Your task to perform on an android device: check storage Image 0: 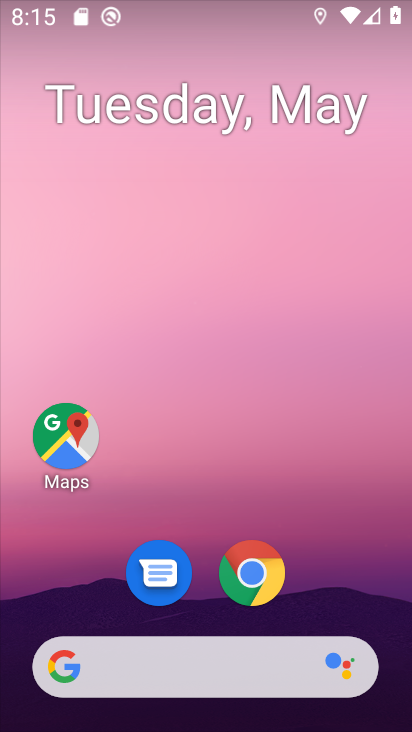
Step 0: drag from (385, 596) to (394, 399)
Your task to perform on an android device: check storage Image 1: 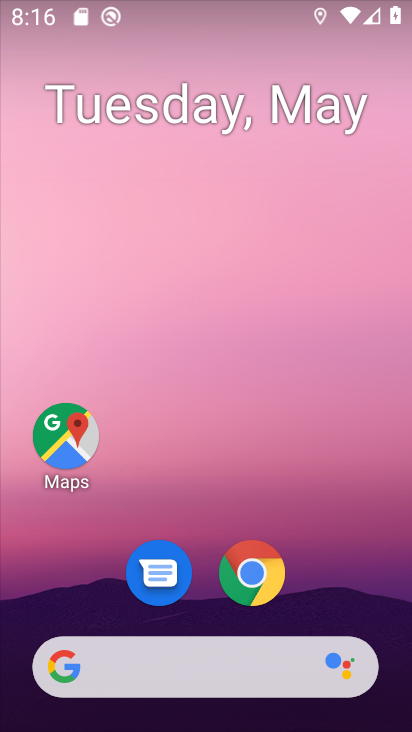
Step 1: drag from (387, 707) to (358, 394)
Your task to perform on an android device: check storage Image 2: 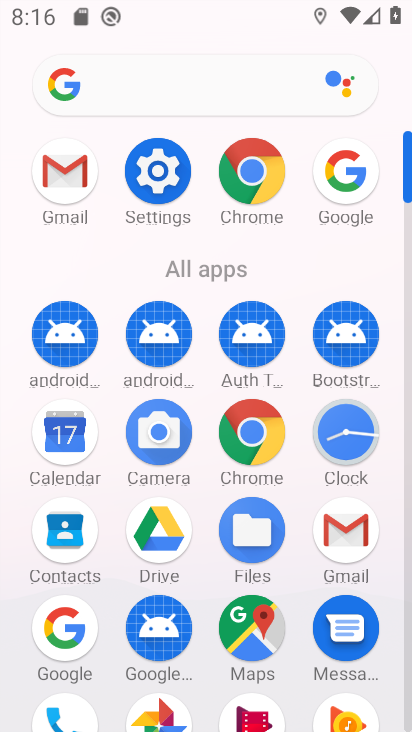
Step 2: click (157, 175)
Your task to perform on an android device: check storage Image 3: 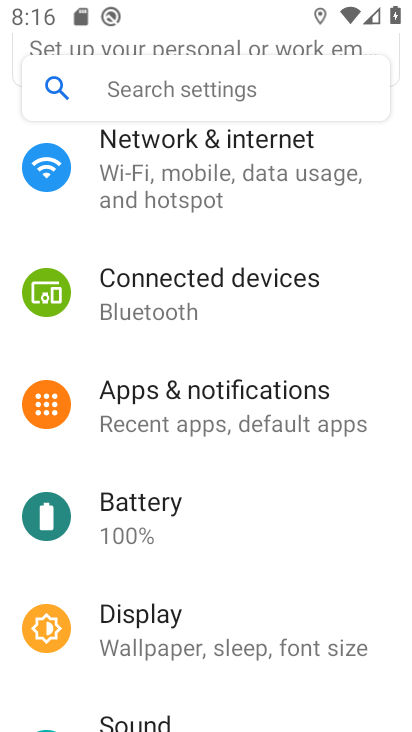
Step 3: drag from (362, 697) to (311, 392)
Your task to perform on an android device: check storage Image 4: 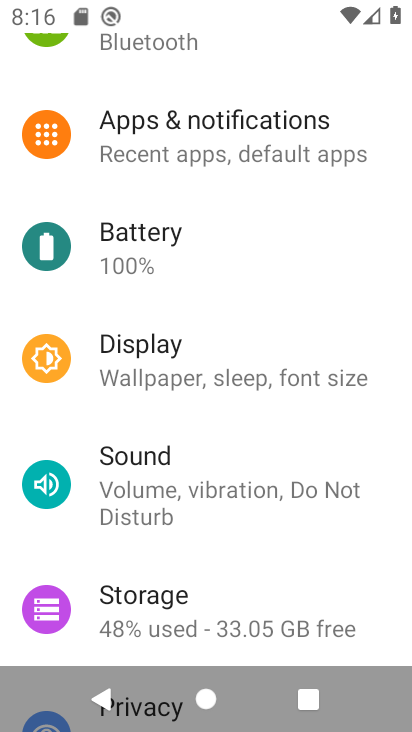
Step 4: click (142, 619)
Your task to perform on an android device: check storage Image 5: 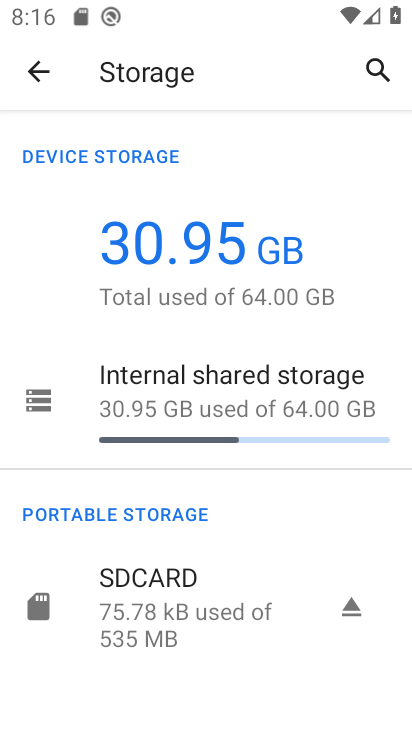
Step 5: task complete